Your task to perform on an android device: Go to battery settings Image 0: 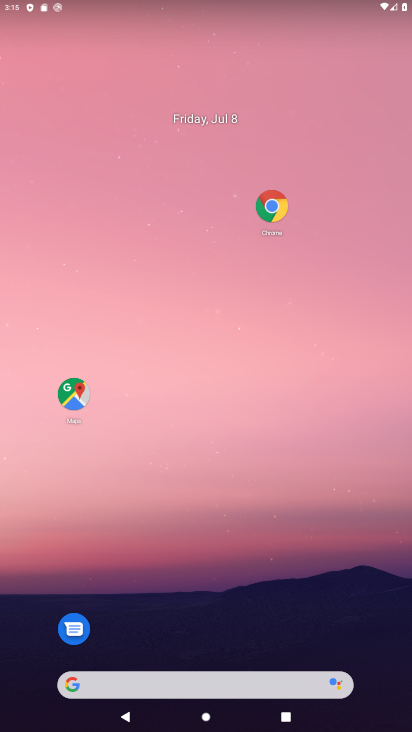
Step 0: click (258, 35)
Your task to perform on an android device: Go to battery settings Image 1: 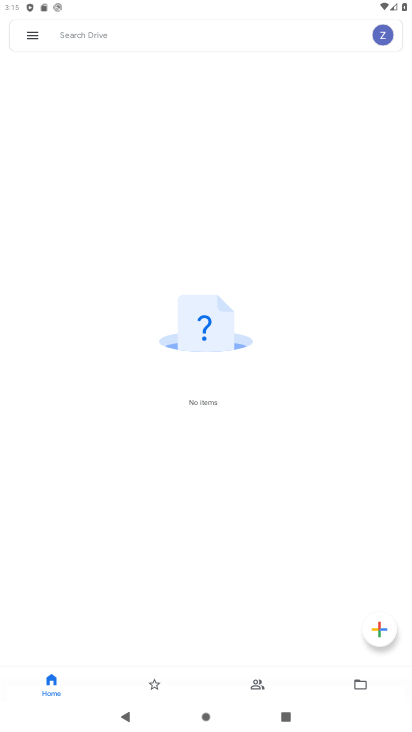
Step 1: drag from (189, 607) to (285, 152)
Your task to perform on an android device: Go to battery settings Image 2: 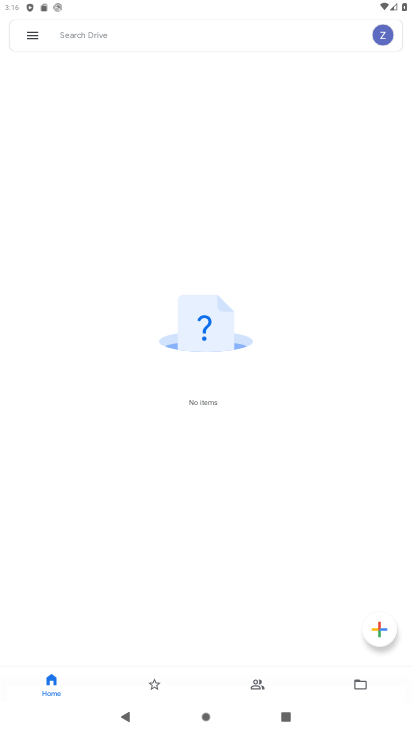
Step 2: drag from (161, 581) to (202, 377)
Your task to perform on an android device: Go to battery settings Image 3: 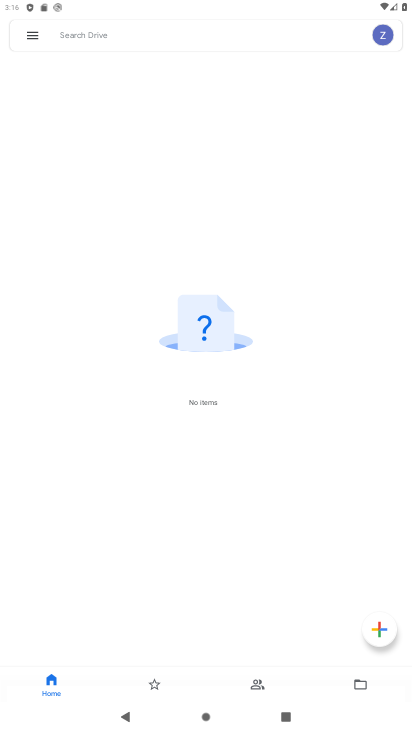
Step 3: drag from (212, 568) to (212, 264)
Your task to perform on an android device: Go to battery settings Image 4: 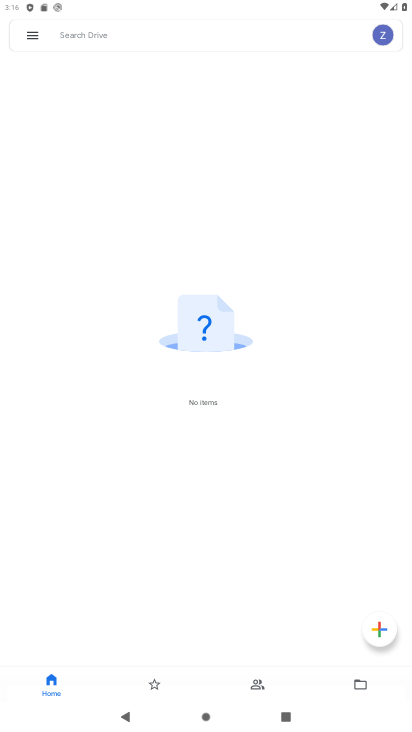
Step 4: drag from (213, 554) to (218, 351)
Your task to perform on an android device: Go to battery settings Image 5: 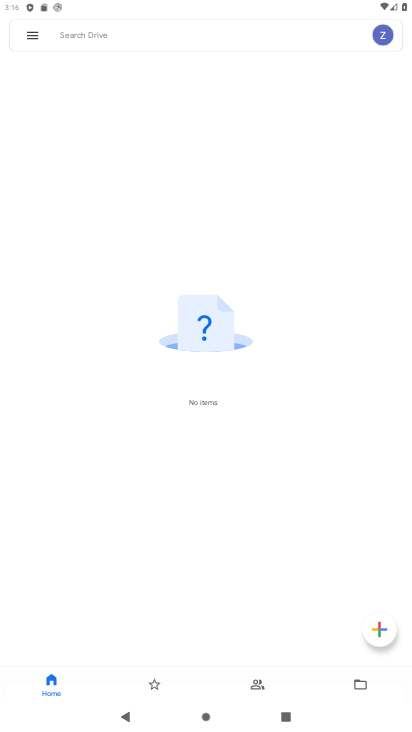
Step 5: drag from (135, 574) to (208, 323)
Your task to perform on an android device: Go to battery settings Image 6: 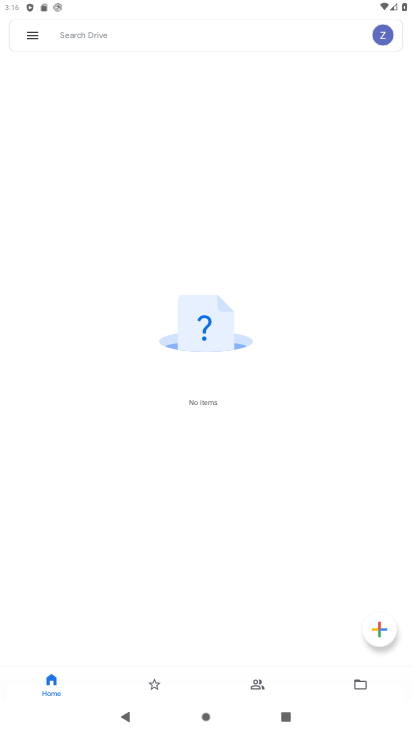
Step 6: press home button
Your task to perform on an android device: Go to battery settings Image 7: 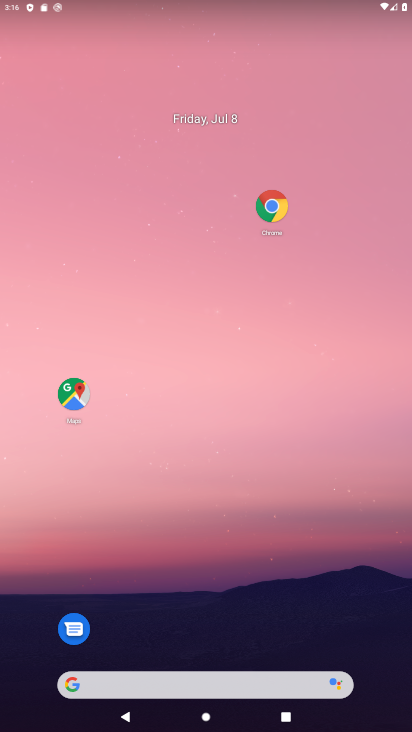
Step 7: drag from (188, 643) to (208, 407)
Your task to perform on an android device: Go to battery settings Image 8: 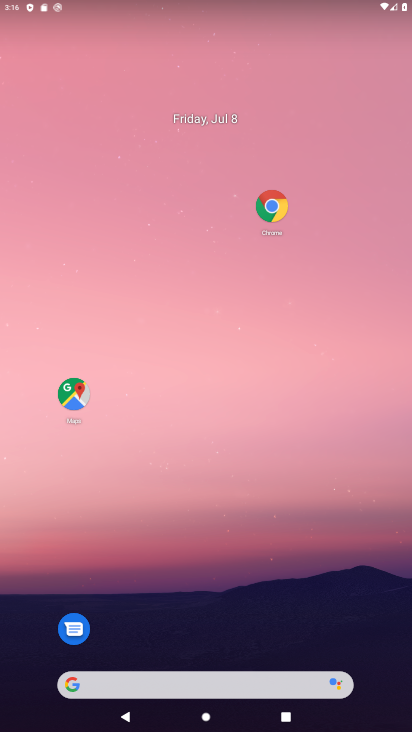
Step 8: drag from (138, 670) to (238, 321)
Your task to perform on an android device: Go to battery settings Image 9: 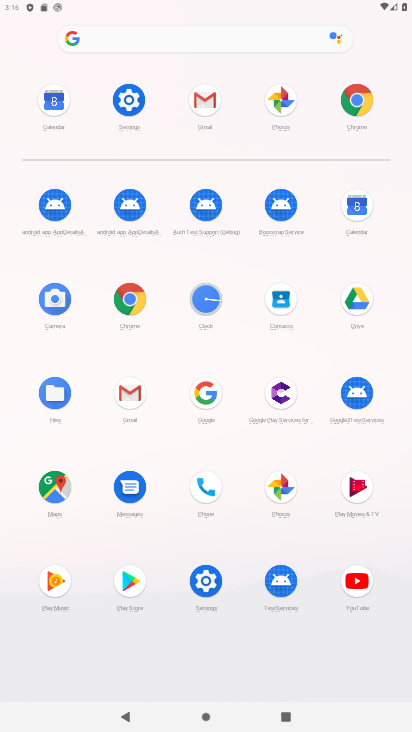
Step 9: click (217, 594)
Your task to perform on an android device: Go to battery settings Image 10: 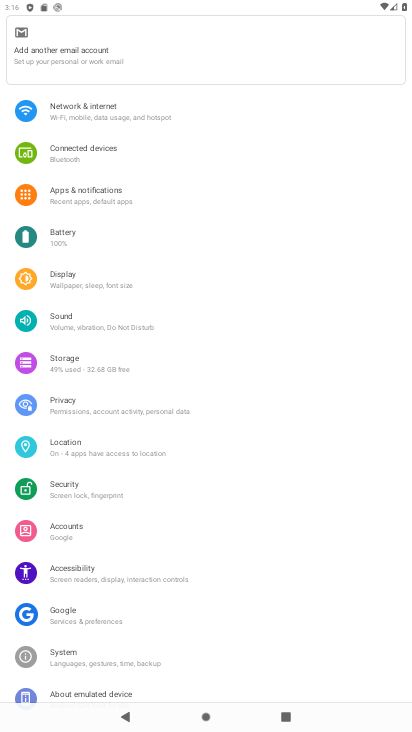
Step 10: click (87, 240)
Your task to perform on an android device: Go to battery settings Image 11: 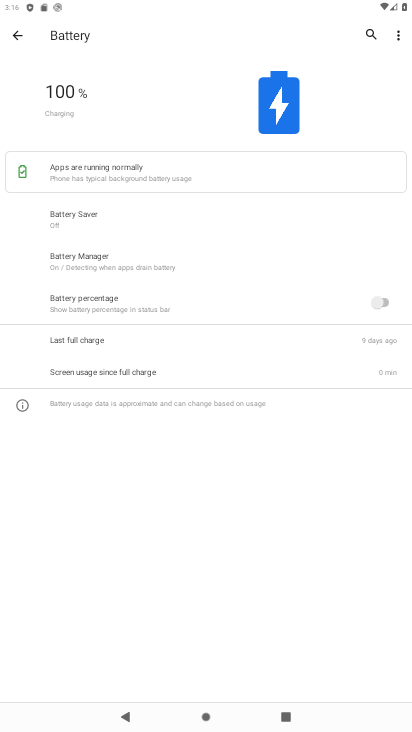
Step 11: task complete